Your task to perform on an android device: change notifications settings Image 0: 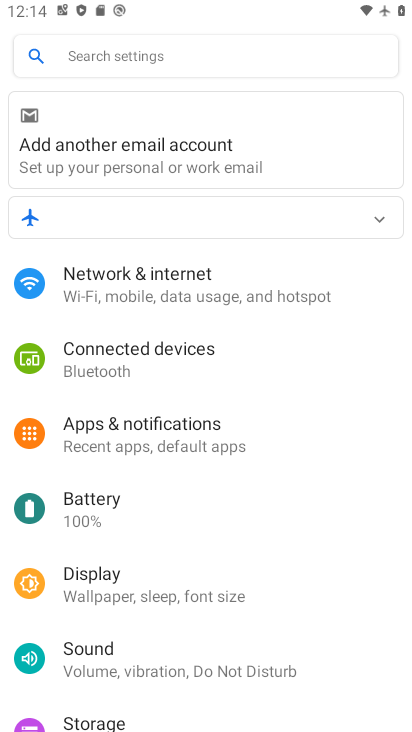
Step 0: press home button
Your task to perform on an android device: change notifications settings Image 1: 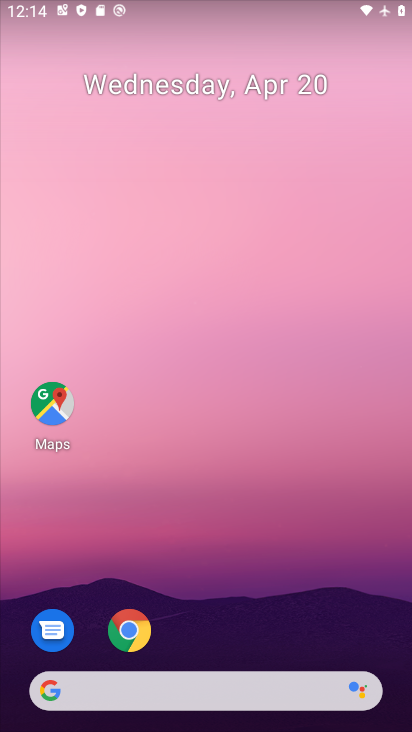
Step 1: drag from (196, 645) to (320, 31)
Your task to perform on an android device: change notifications settings Image 2: 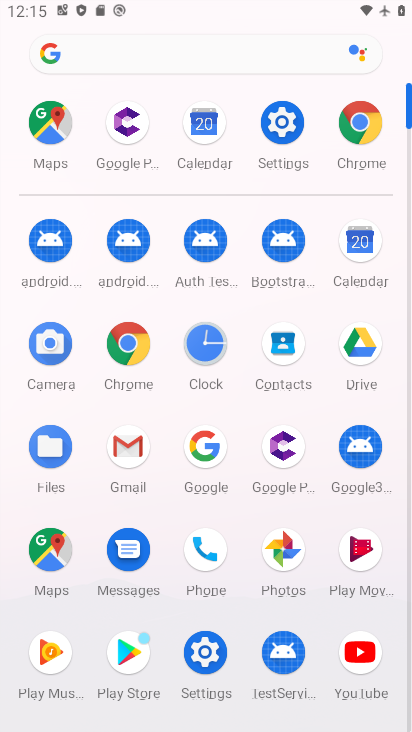
Step 2: click (281, 135)
Your task to perform on an android device: change notifications settings Image 3: 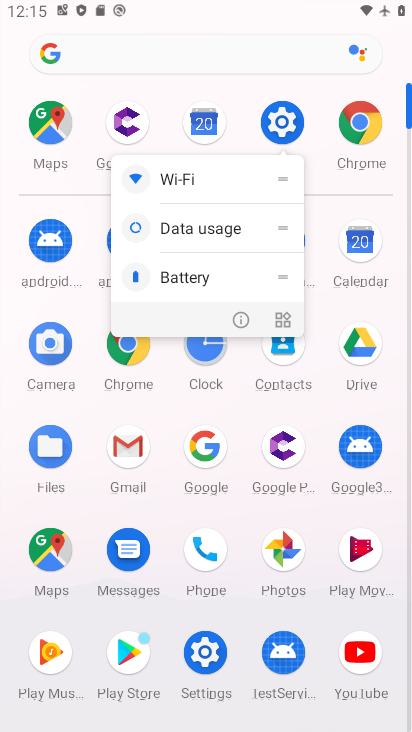
Step 3: click (284, 119)
Your task to perform on an android device: change notifications settings Image 4: 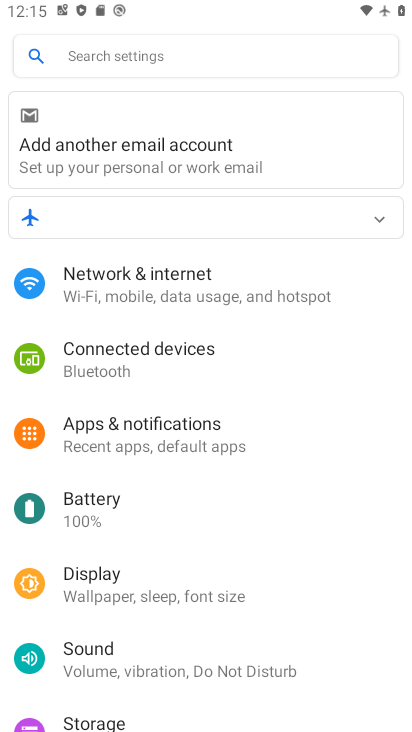
Step 4: click (180, 435)
Your task to perform on an android device: change notifications settings Image 5: 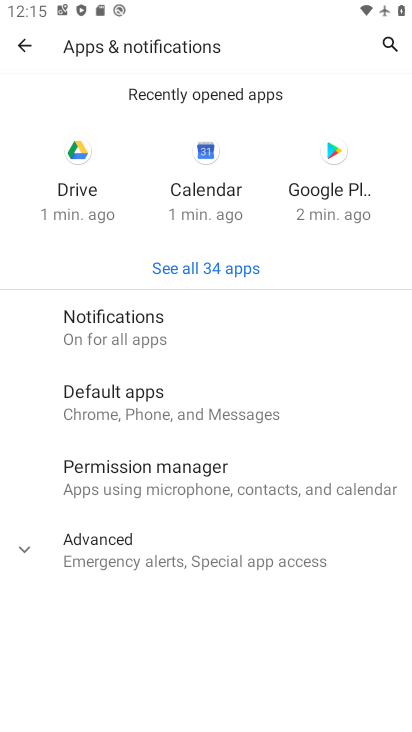
Step 5: click (130, 331)
Your task to perform on an android device: change notifications settings Image 6: 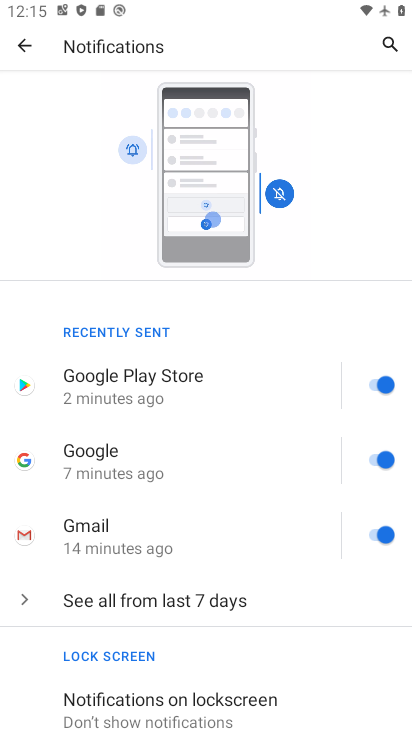
Step 6: click (370, 387)
Your task to perform on an android device: change notifications settings Image 7: 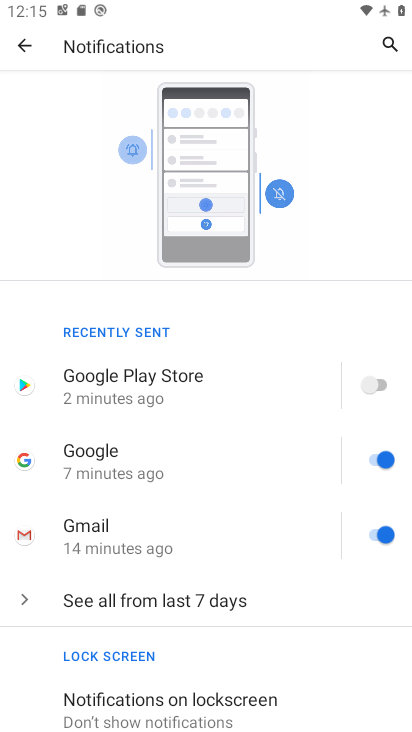
Step 7: task complete